Your task to perform on an android device: turn off smart reply in the gmail app Image 0: 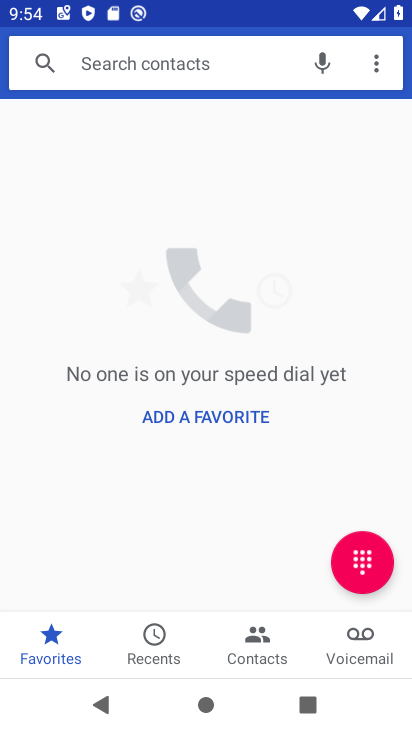
Step 0: press home button
Your task to perform on an android device: turn off smart reply in the gmail app Image 1: 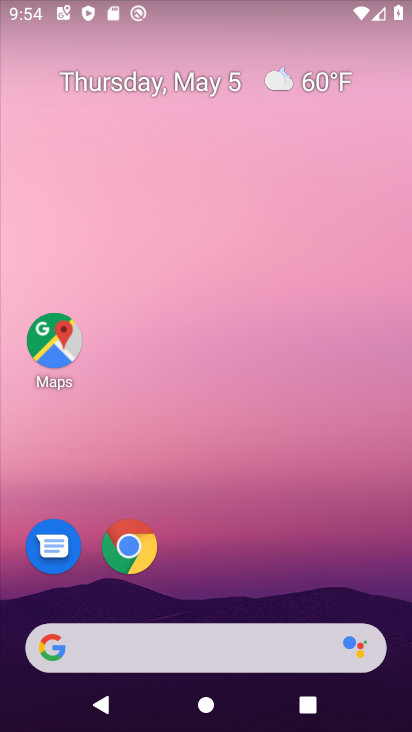
Step 1: drag from (236, 579) to (217, 15)
Your task to perform on an android device: turn off smart reply in the gmail app Image 2: 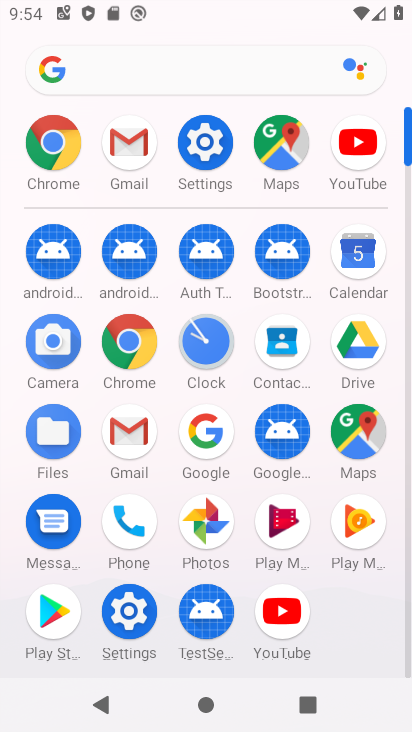
Step 2: click (112, 152)
Your task to perform on an android device: turn off smart reply in the gmail app Image 3: 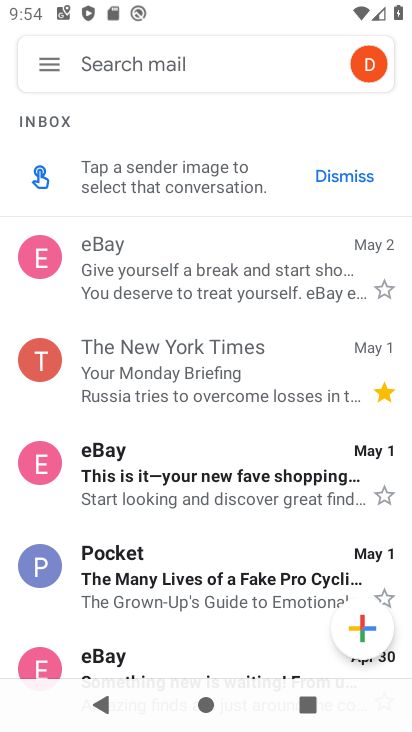
Step 3: click (53, 76)
Your task to perform on an android device: turn off smart reply in the gmail app Image 4: 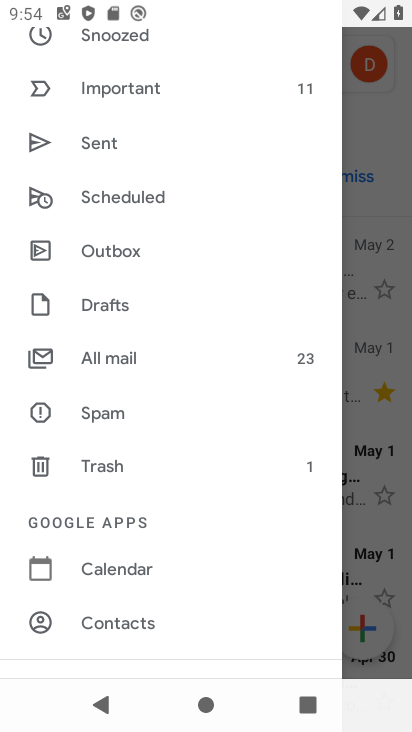
Step 4: drag from (99, 541) to (99, 313)
Your task to perform on an android device: turn off smart reply in the gmail app Image 5: 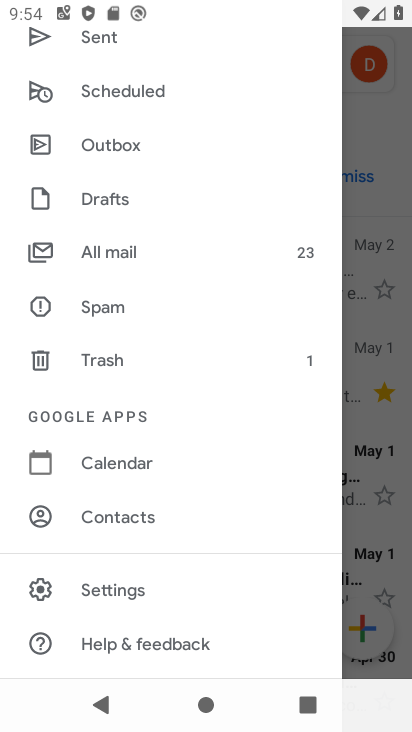
Step 5: click (100, 573)
Your task to perform on an android device: turn off smart reply in the gmail app Image 6: 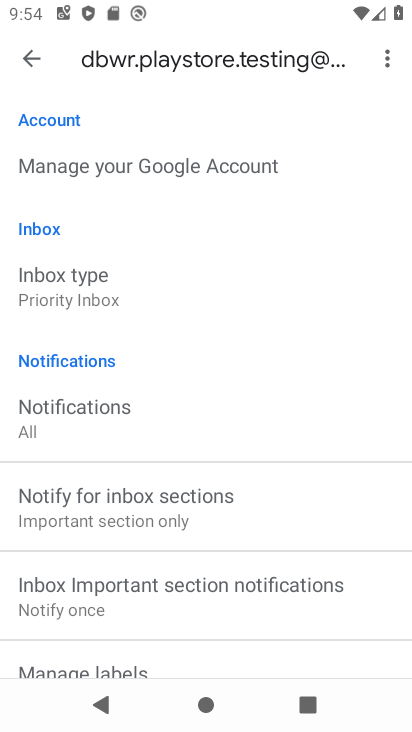
Step 6: drag from (111, 592) to (81, 395)
Your task to perform on an android device: turn off smart reply in the gmail app Image 7: 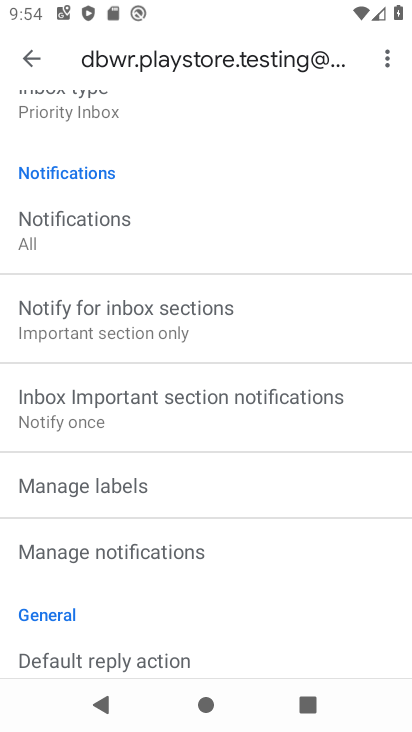
Step 7: drag from (117, 570) to (90, 417)
Your task to perform on an android device: turn off smart reply in the gmail app Image 8: 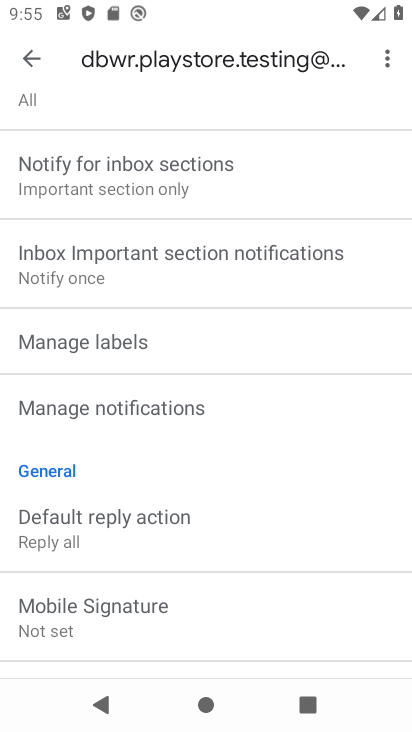
Step 8: drag from (132, 546) to (145, 405)
Your task to perform on an android device: turn off smart reply in the gmail app Image 9: 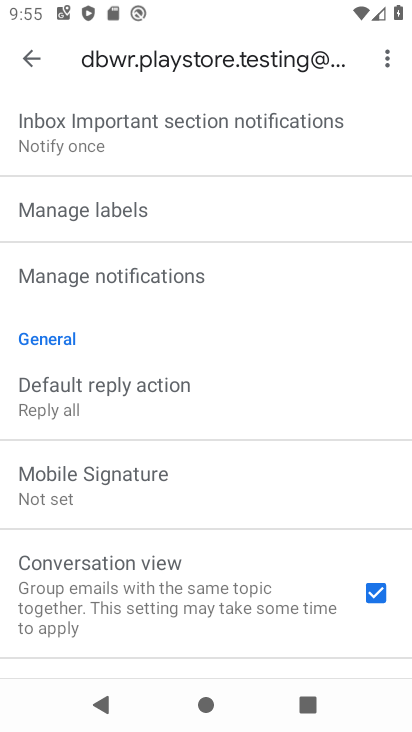
Step 9: drag from (180, 575) to (162, 419)
Your task to perform on an android device: turn off smart reply in the gmail app Image 10: 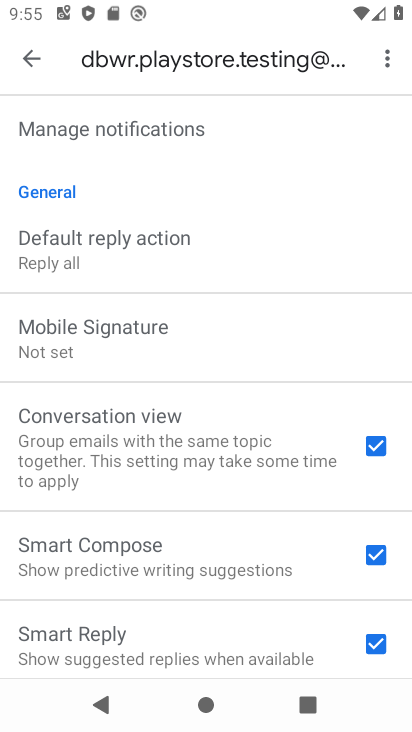
Step 10: drag from (170, 561) to (151, 361)
Your task to perform on an android device: turn off smart reply in the gmail app Image 11: 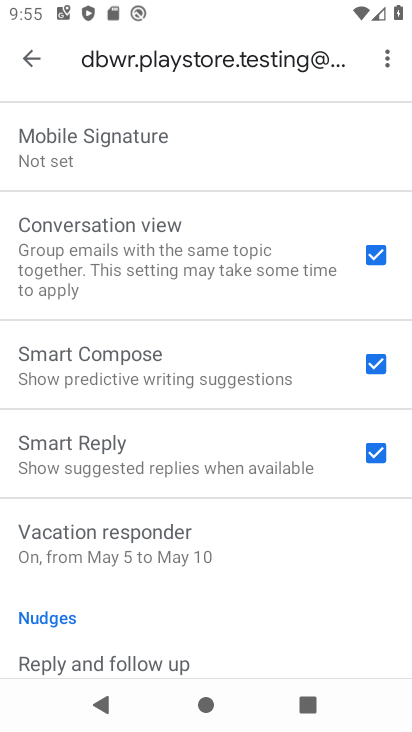
Step 11: click (364, 450)
Your task to perform on an android device: turn off smart reply in the gmail app Image 12: 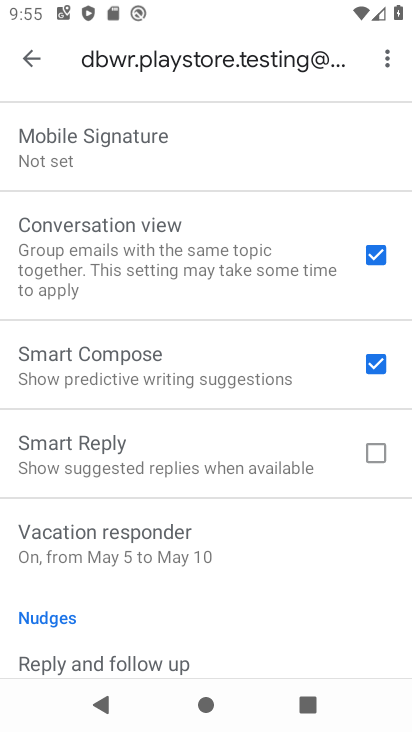
Step 12: task complete